Your task to perform on an android device: change text size in settings app Image 0: 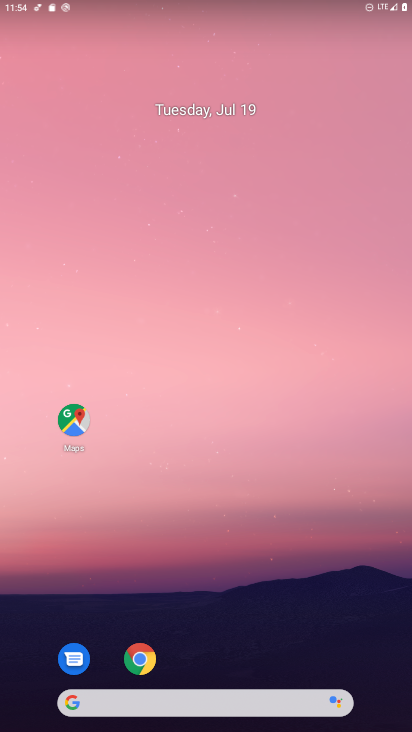
Step 0: drag from (287, 317) to (286, 83)
Your task to perform on an android device: change text size in settings app Image 1: 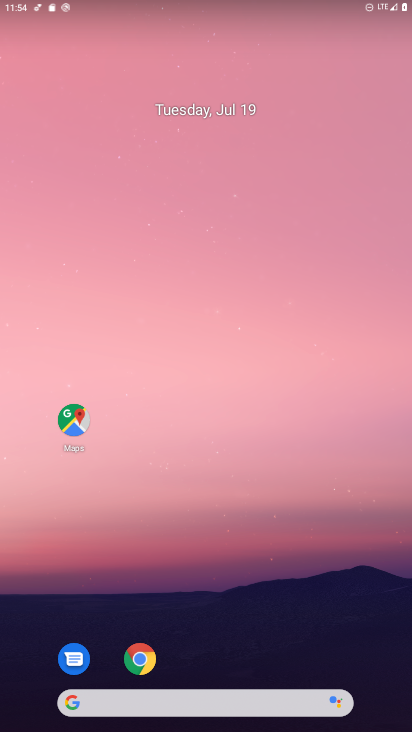
Step 1: drag from (307, 582) to (316, 0)
Your task to perform on an android device: change text size in settings app Image 2: 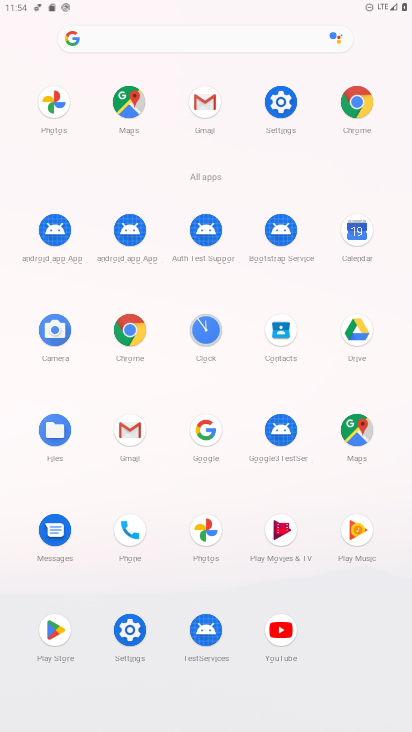
Step 2: click (282, 116)
Your task to perform on an android device: change text size in settings app Image 3: 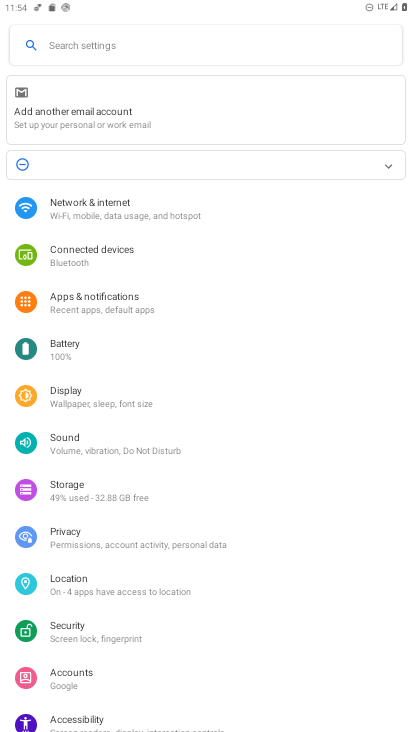
Step 3: drag from (179, 694) to (188, 98)
Your task to perform on an android device: change text size in settings app Image 4: 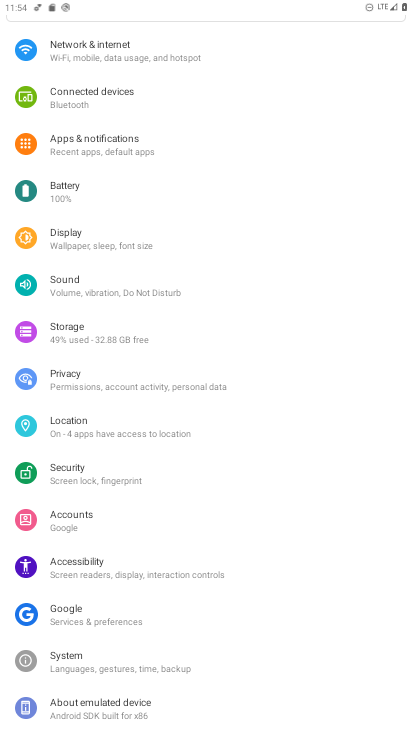
Step 4: click (99, 248)
Your task to perform on an android device: change text size in settings app Image 5: 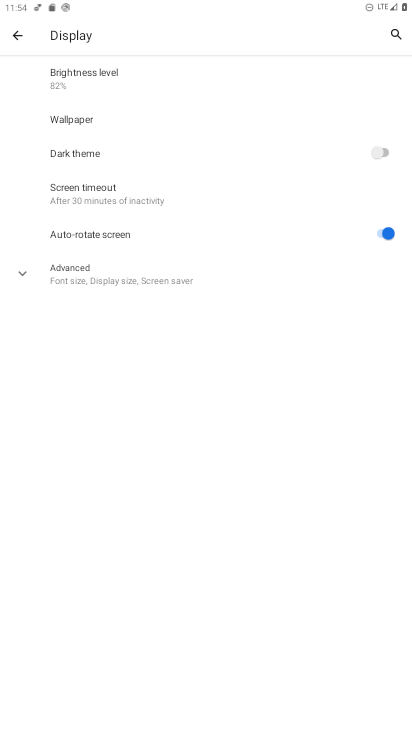
Step 5: click (94, 271)
Your task to perform on an android device: change text size in settings app Image 6: 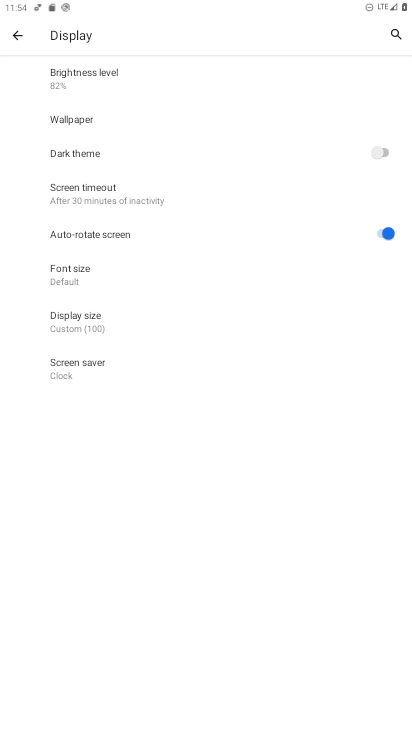
Step 6: click (85, 271)
Your task to perform on an android device: change text size in settings app Image 7: 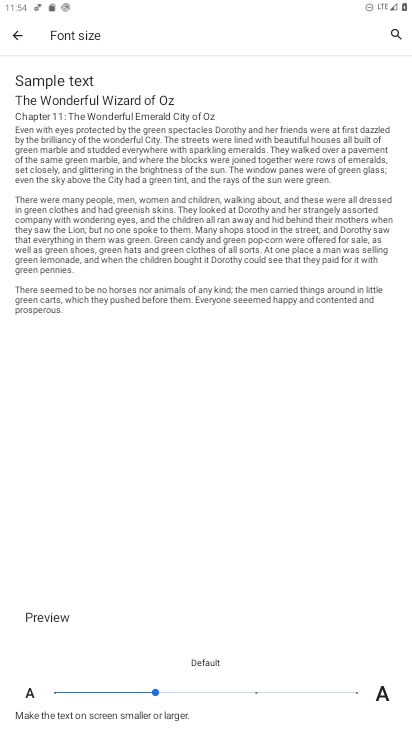
Step 7: click (74, 687)
Your task to perform on an android device: change text size in settings app Image 8: 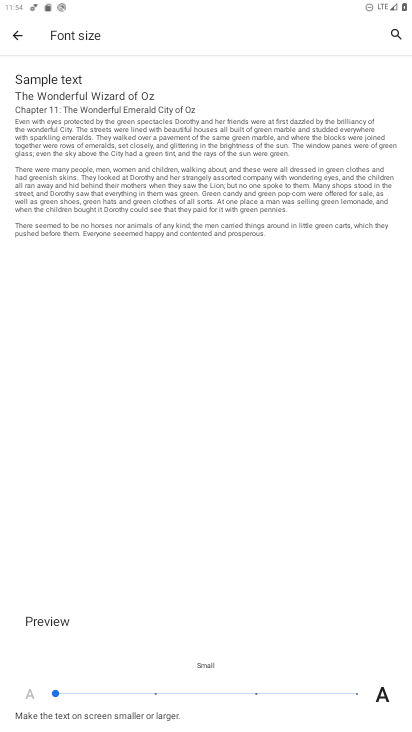
Step 8: task complete